Your task to perform on an android device: change timer sound Image 0: 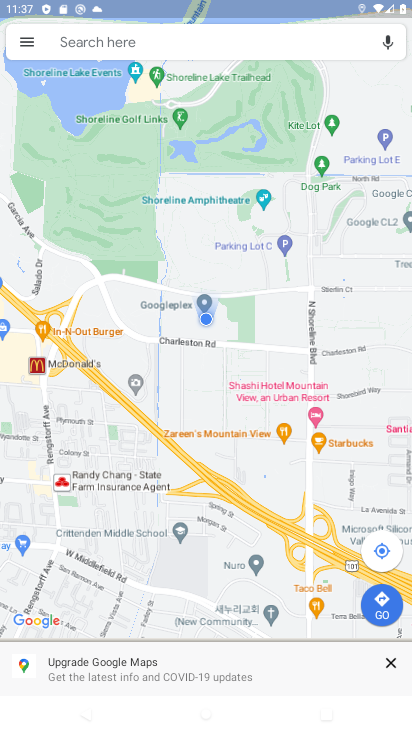
Step 0: press home button
Your task to perform on an android device: change timer sound Image 1: 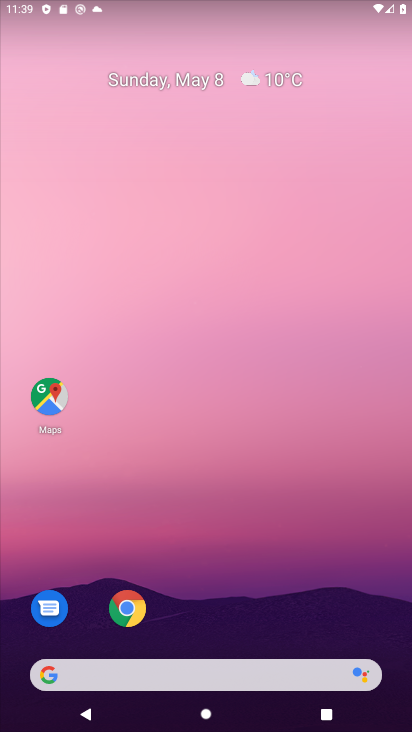
Step 1: drag from (248, 634) to (170, 157)
Your task to perform on an android device: change timer sound Image 2: 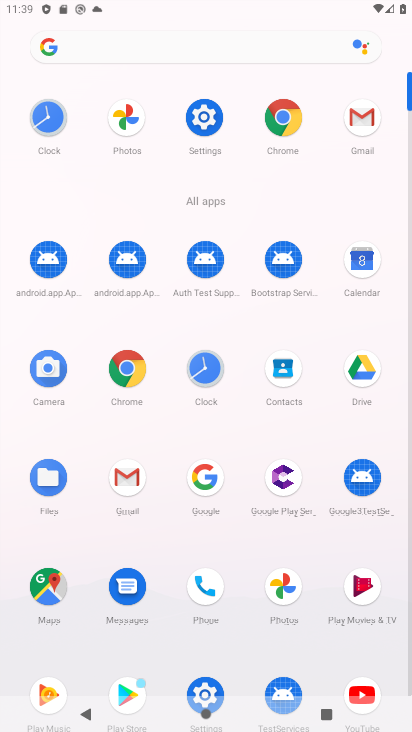
Step 2: click (205, 132)
Your task to perform on an android device: change timer sound Image 3: 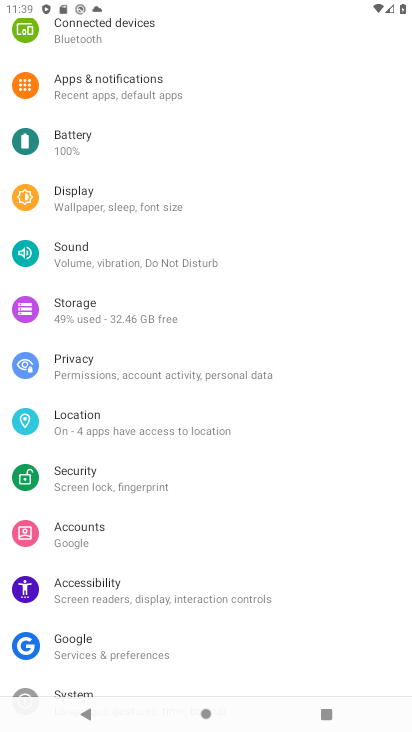
Step 3: task complete